Your task to perform on an android device: Do I have any events this weekend? Image 0: 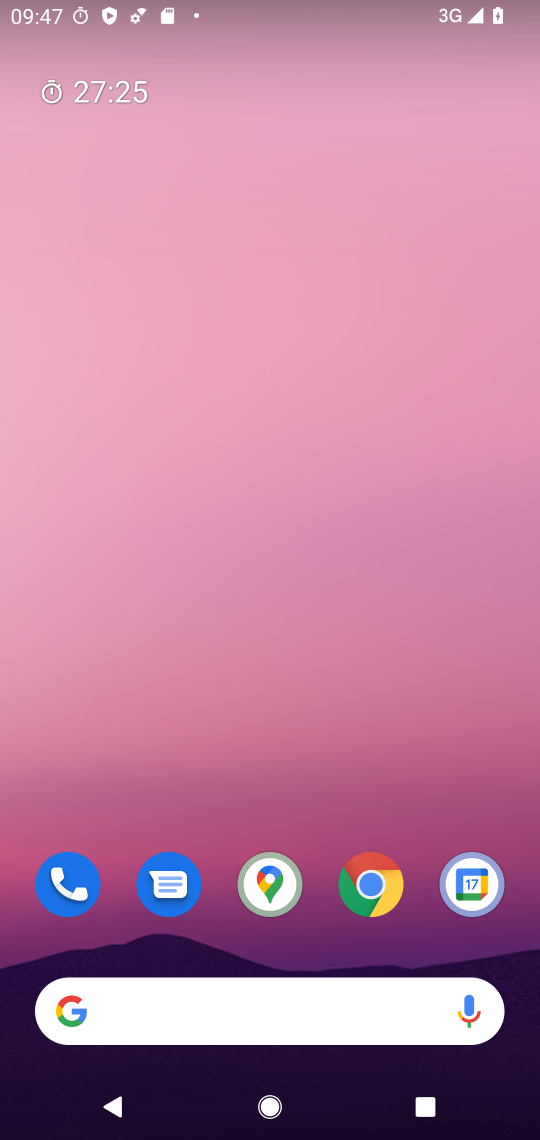
Step 0: drag from (256, 653) to (280, 210)
Your task to perform on an android device: Do I have any events this weekend? Image 1: 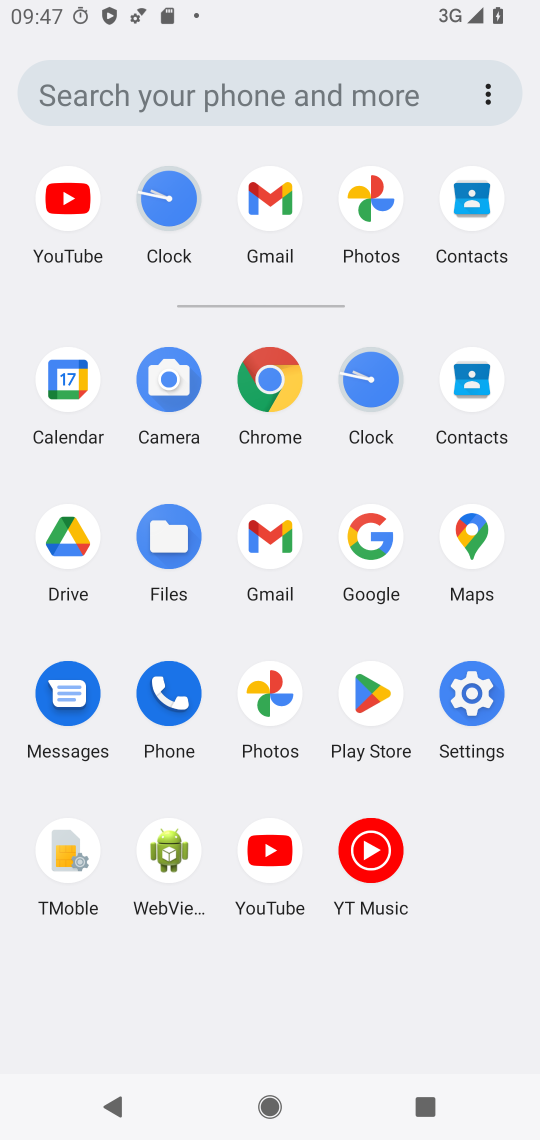
Step 1: click (89, 385)
Your task to perform on an android device: Do I have any events this weekend? Image 2: 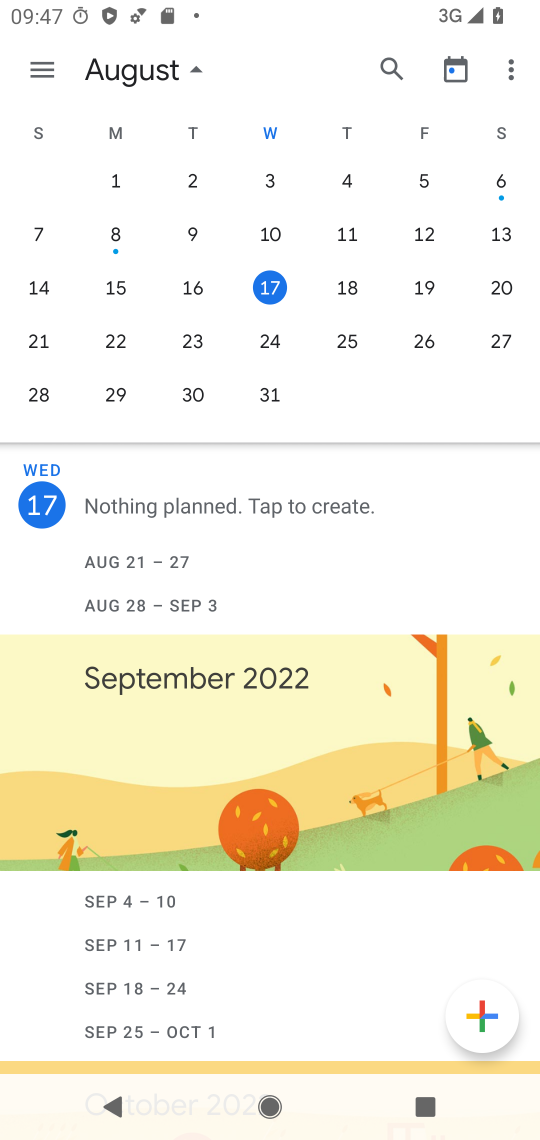
Step 2: click (491, 271)
Your task to perform on an android device: Do I have any events this weekend? Image 3: 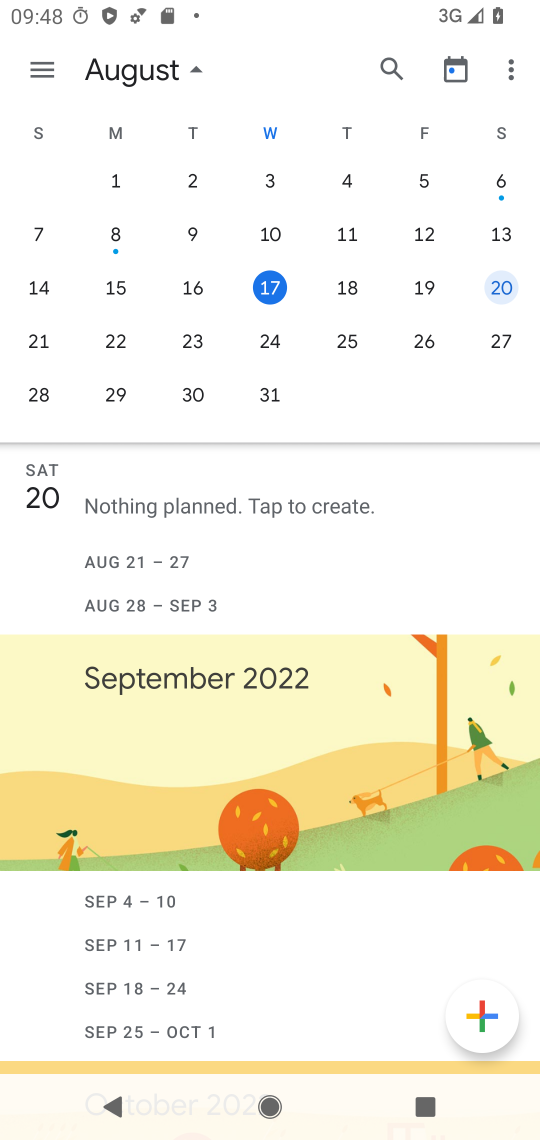
Step 3: click (419, 297)
Your task to perform on an android device: Do I have any events this weekend? Image 4: 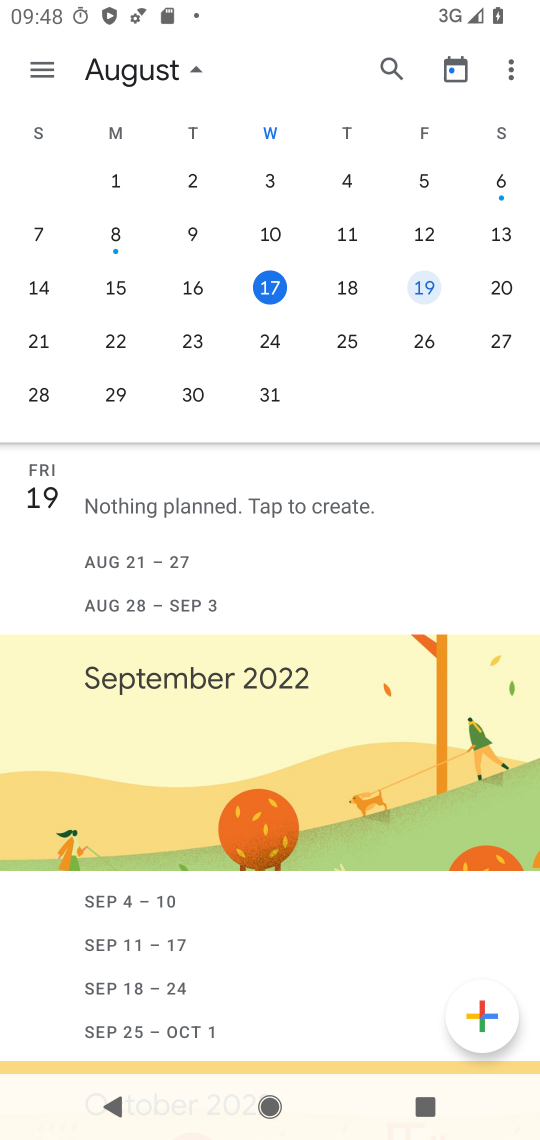
Step 4: click (478, 285)
Your task to perform on an android device: Do I have any events this weekend? Image 5: 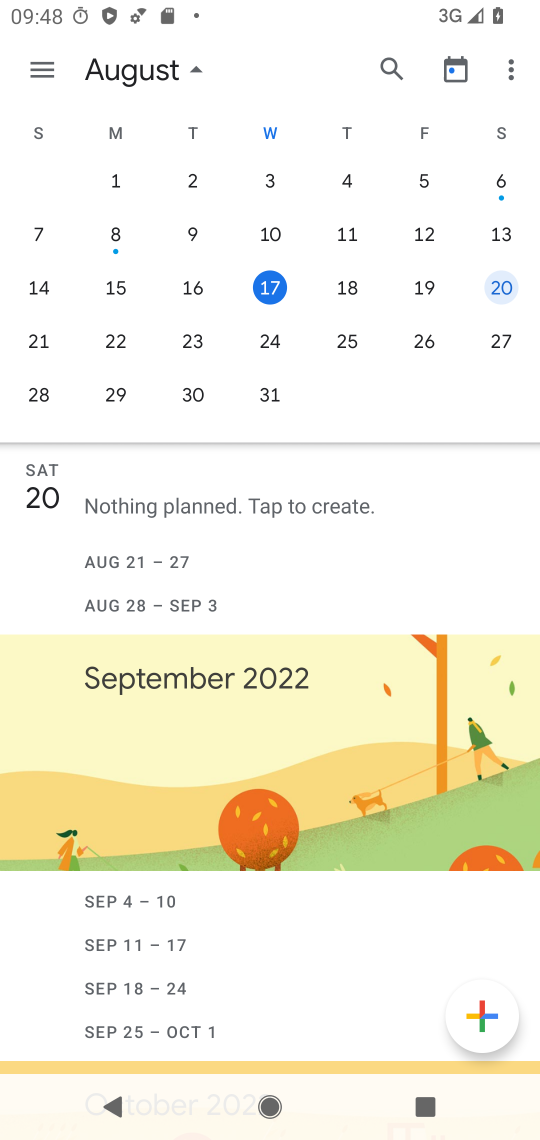
Step 5: task complete